Your task to perform on an android device: set an alarm Image 0: 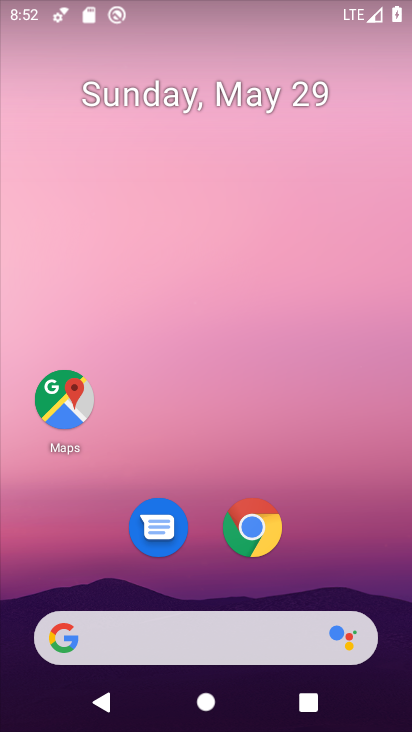
Step 0: drag from (215, 573) to (304, 16)
Your task to perform on an android device: set an alarm Image 1: 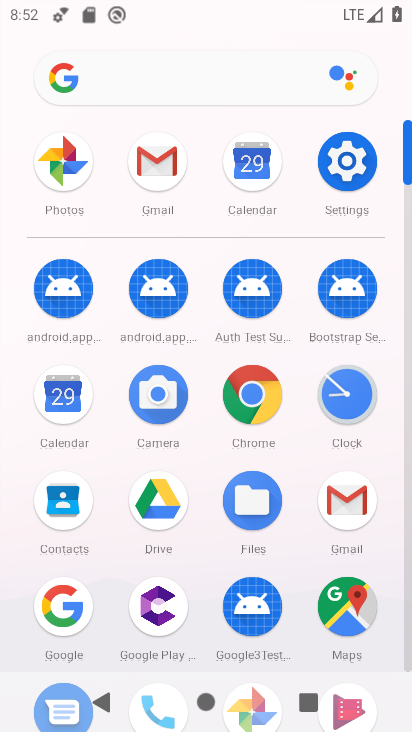
Step 1: click (344, 389)
Your task to perform on an android device: set an alarm Image 2: 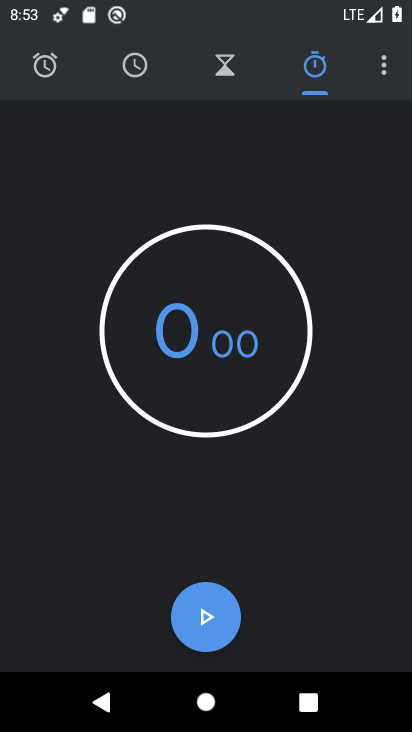
Step 2: click (43, 59)
Your task to perform on an android device: set an alarm Image 3: 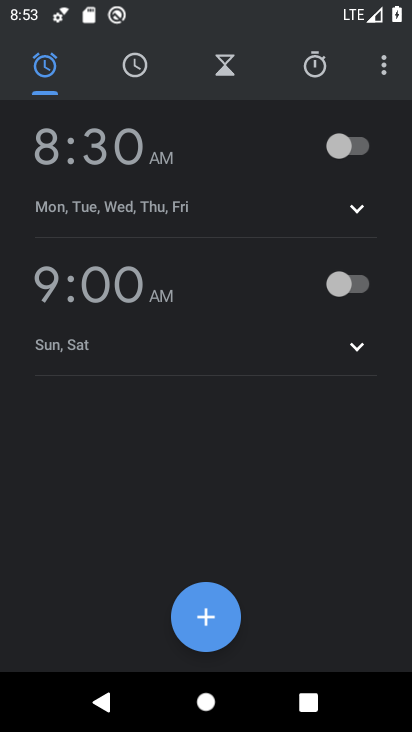
Step 3: click (351, 137)
Your task to perform on an android device: set an alarm Image 4: 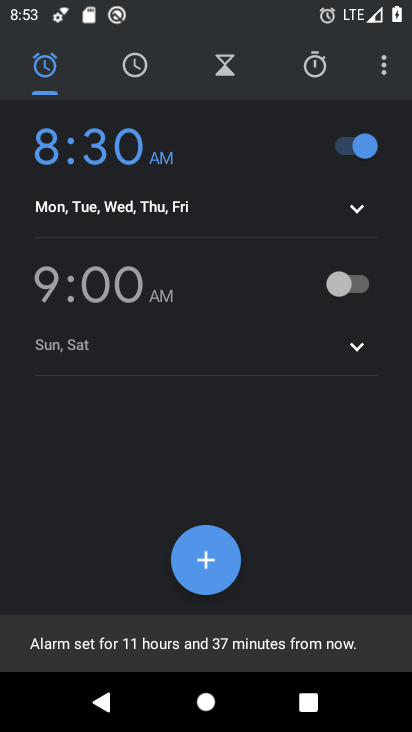
Step 4: task complete